Your task to perform on an android device: move an email to a new category in the gmail app Image 0: 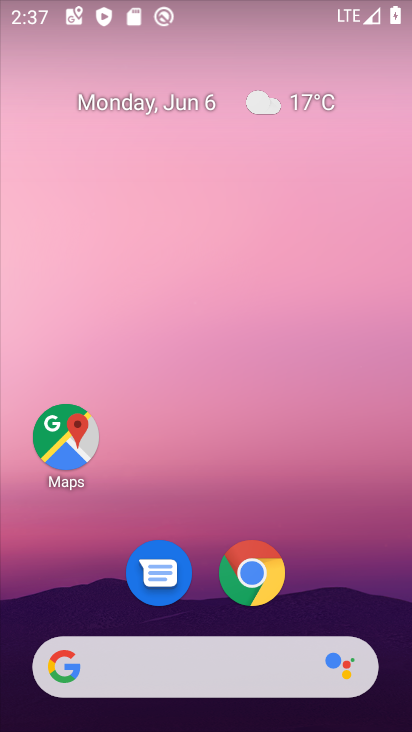
Step 0: drag from (368, 572) to (351, 114)
Your task to perform on an android device: move an email to a new category in the gmail app Image 1: 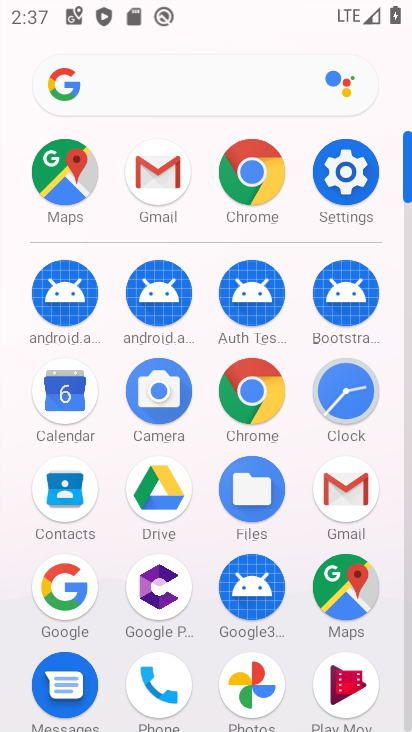
Step 1: click (357, 485)
Your task to perform on an android device: move an email to a new category in the gmail app Image 2: 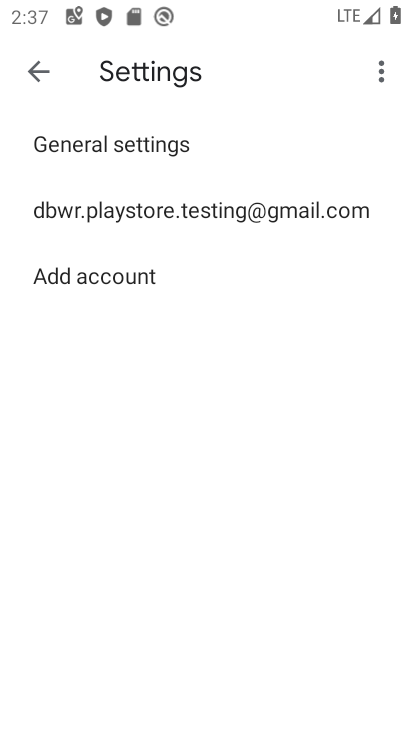
Step 2: task complete